Your task to perform on an android device: turn off wifi Image 0: 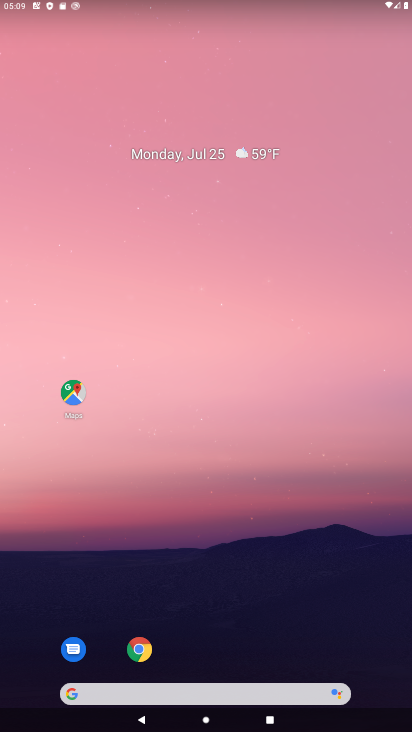
Step 0: drag from (219, 469) to (25, 199)
Your task to perform on an android device: turn off wifi Image 1: 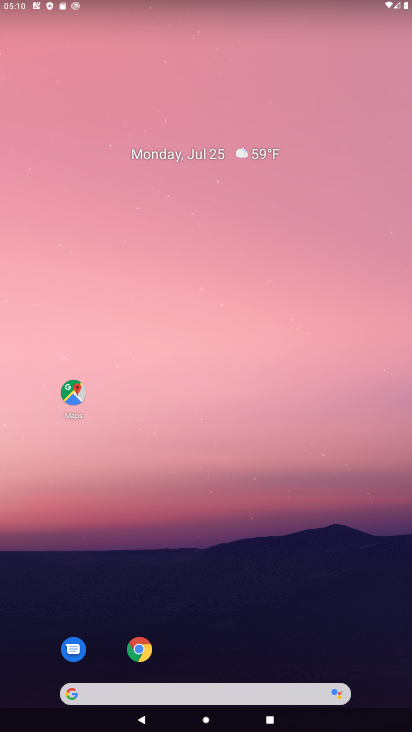
Step 1: drag from (250, 602) to (21, 192)
Your task to perform on an android device: turn off wifi Image 2: 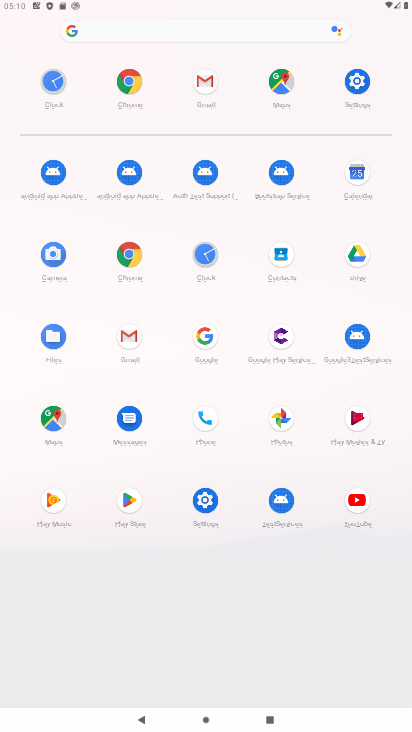
Step 2: click (360, 74)
Your task to perform on an android device: turn off wifi Image 3: 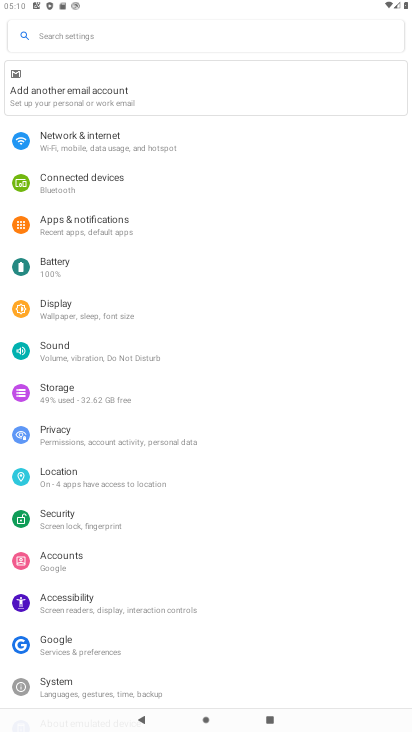
Step 3: click (77, 134)
Your task to perform on an android device: turn off wifi Image 4: 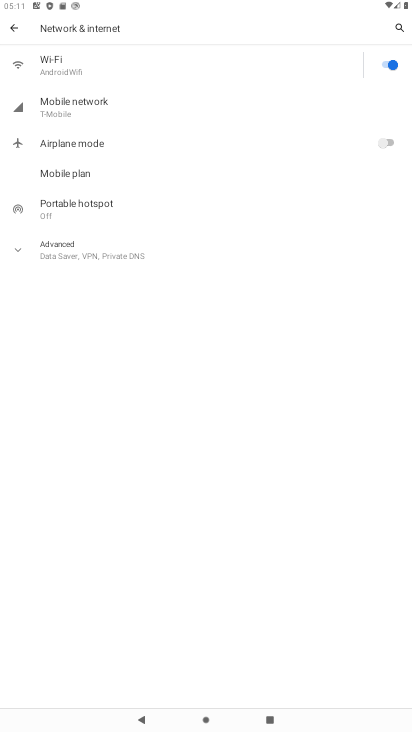
Step 4: click (390, 59)
Your task to perform on an android device: turn off wifi Image 5: 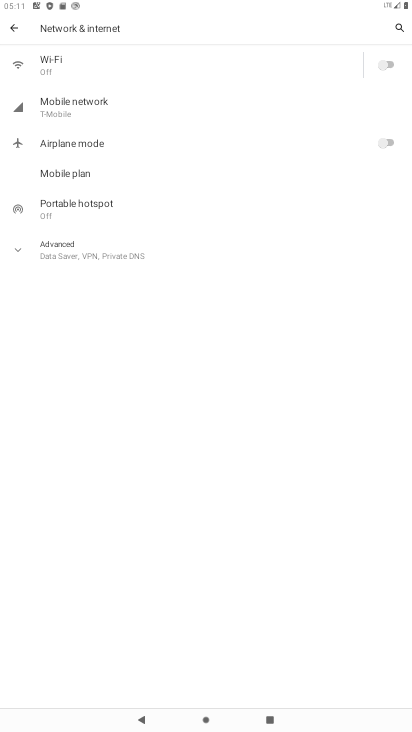
Step 5: task complete